Your task to perform on an android device: search for starred emails in the gmail app Image 0: 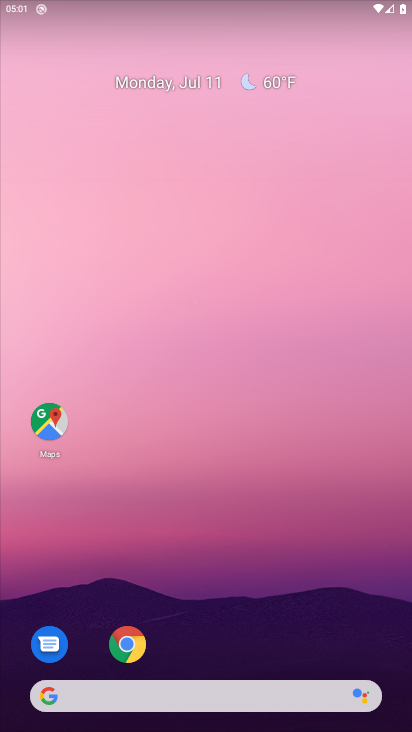
Step 0: drag from (157, 692) to (210, 327)
Your task to perform on an android device: search for starred emails in the gmail app Image 1: 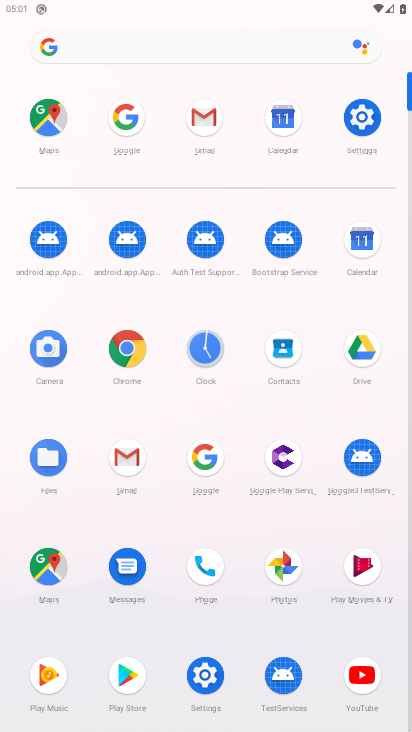
Step 1: click (131, 462)
Your task to perform on an android device: search for starred emails in the gmail app Image 2: 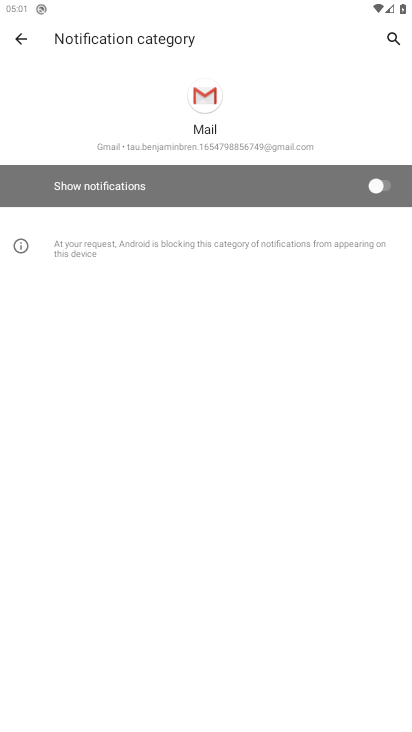
Step 2: click (25, 39)
Your task to perform on an android device: search for starred emails in the gmail app Image 3: 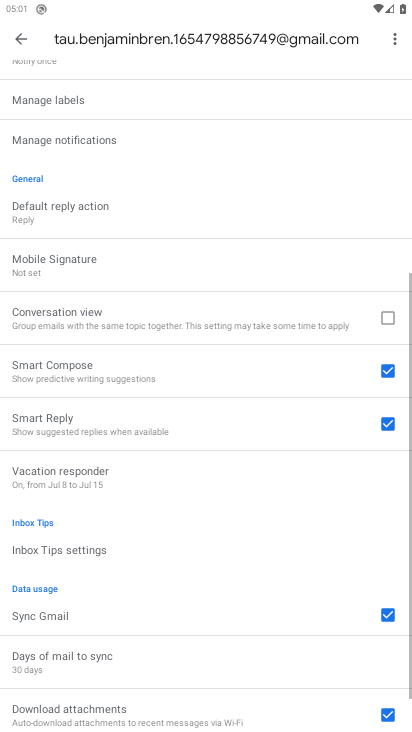
Step 3: click (25, 39)
Your task to perform on an android device: search for starred emails in the gmail app Image 4: 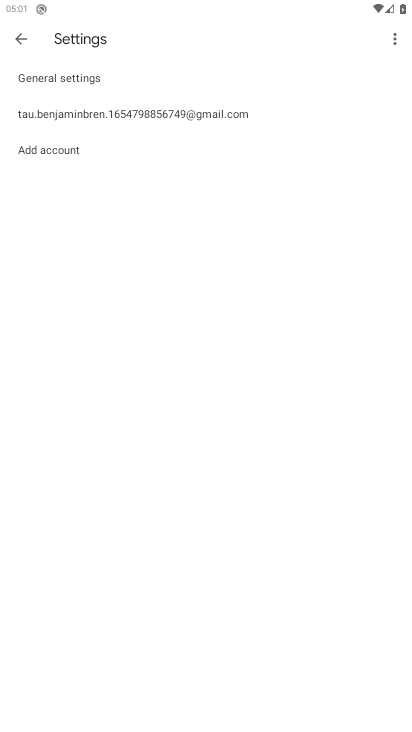
Step 4: click (25, 39)
Your task to perform on an android device: search for starred emails in the gmail app Image 5: 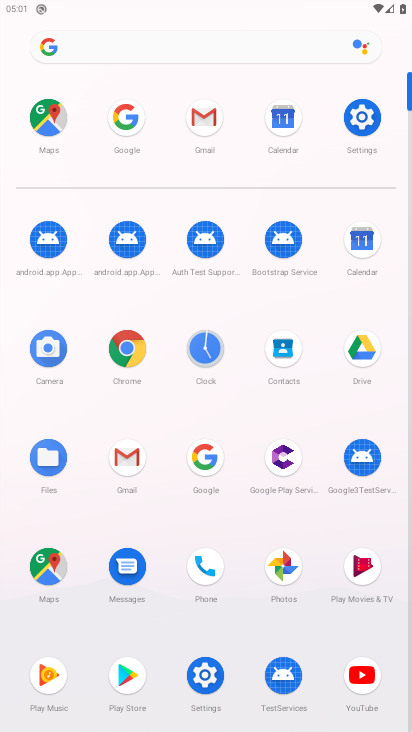
Step 5: click (122, 448)
Your task to perform on an android device: search for starred emails in the gmail app Image 6: 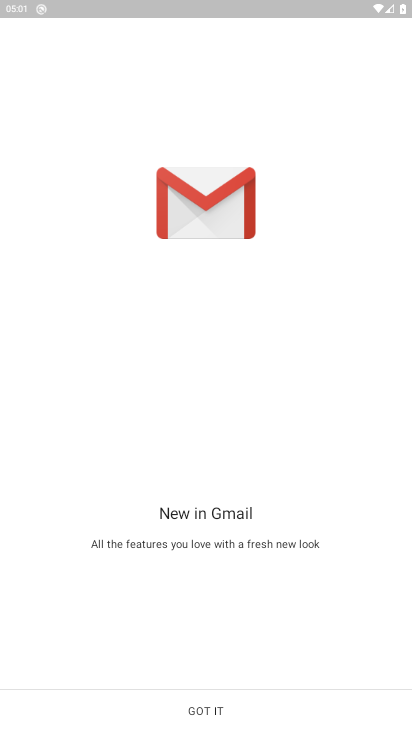
Step 6: click (199, 711)
Your task to perform on an android device: search for starred emails in the gmail app Image 7: 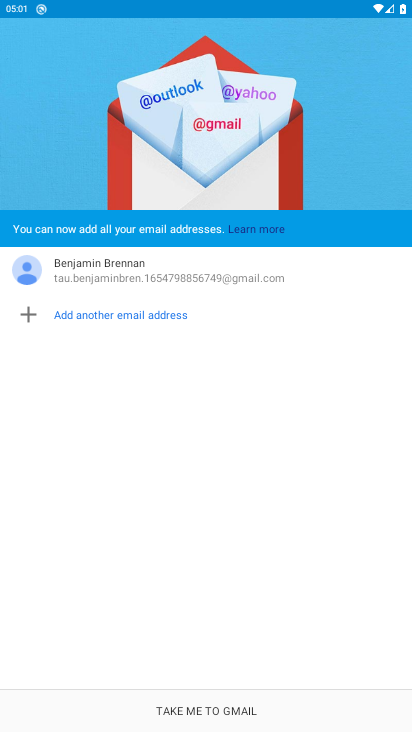
Step 7: click (199, 711)
Your task to perform on an android device: search for starred emails in the gmail app Image 8: 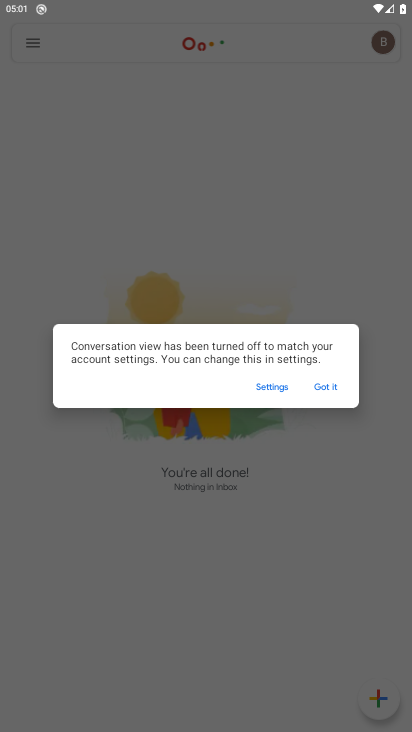
Step 8: click (325, 385)
Your task to perform on an android device: search for starred emails in the gmail app Image 9: 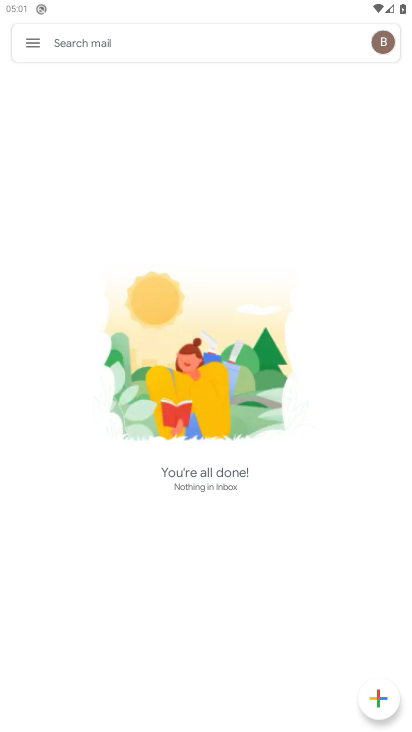
Step 9: click (31, 49)
Your task to perform on an android device: search for starred emails in the gmail app Image 10: 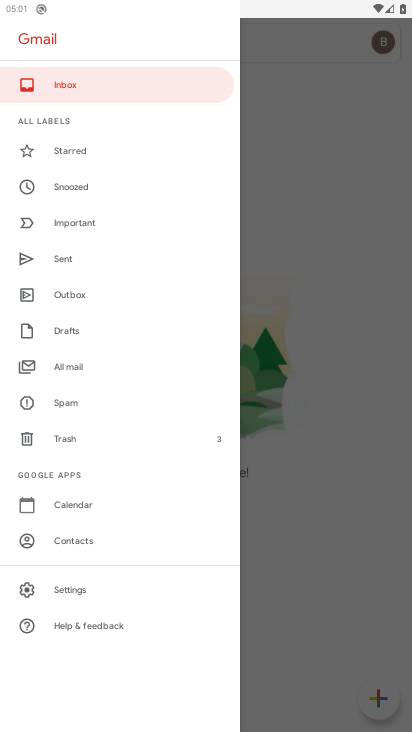
Step 10: click (69, 145)
Your task to perform on an android device: search for starred emails in the gmail app Image 11: 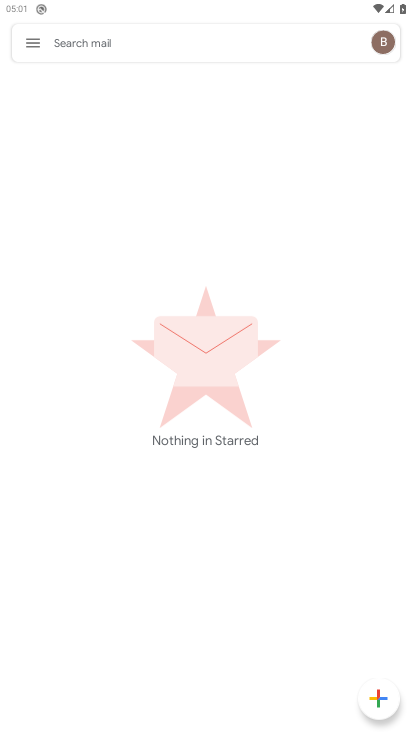
Step 11: task complete